Your task to perform on an android device: Is it going to rain this weekend? Image 0: 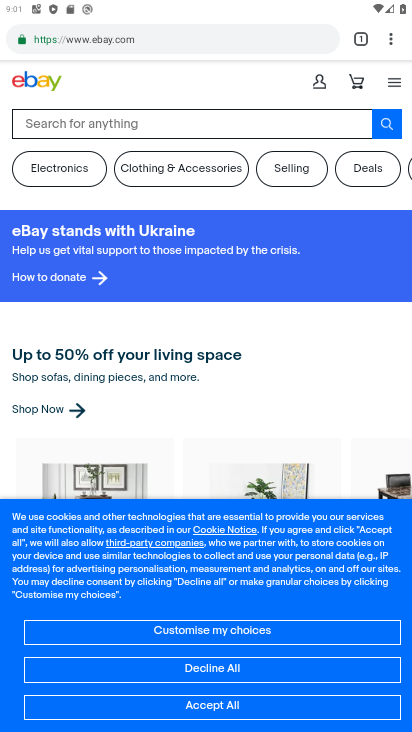
Step 0: click (123, 40)
Your task to perform on an android device: Is it going to rain this weekend? Image 1: 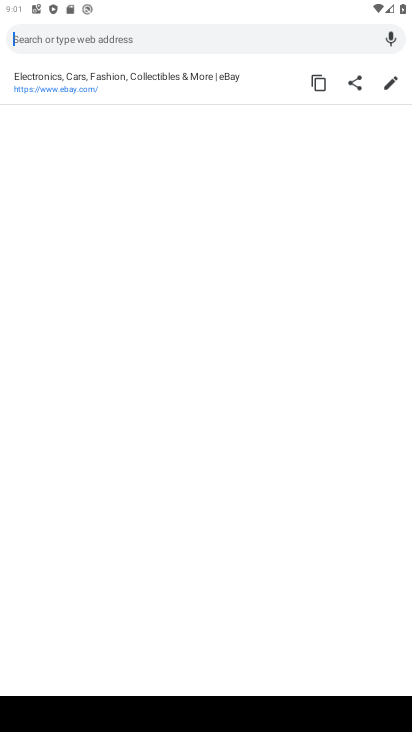
Step 1: type "Is it going to rain this weekend?"
Your task to perform on an android device: Is it going to rain this weekend? Image 2: 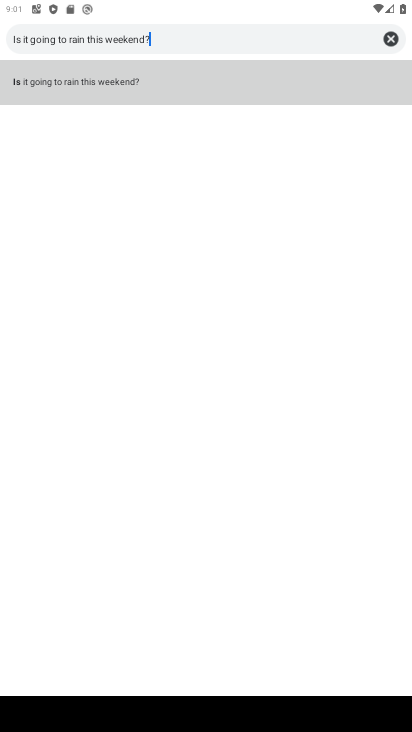
Step 2: type ""
Your task to perform on an android device: Is it going to rain this weekend? Image 3: 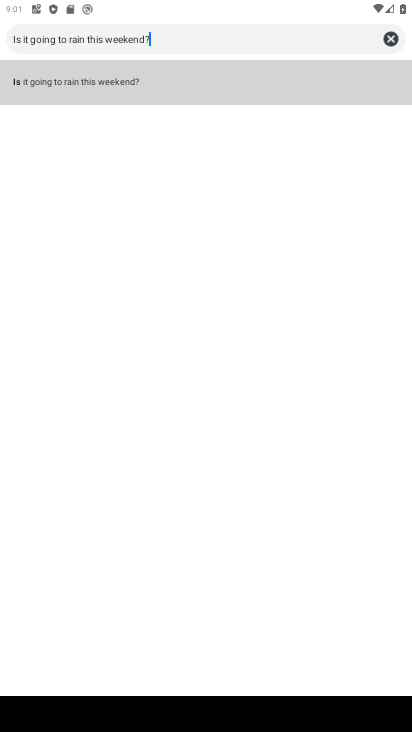
Step 3: click (72, 73)
Your task to perform on an android device: Is it going to rain this weekend? Image 4: 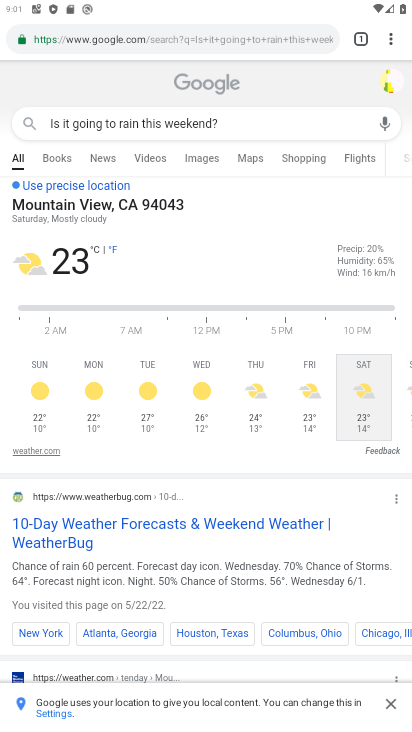
Step 4: task complete